Your task to perform on an android device: Open calendar and show me the second week of next month Image 0: 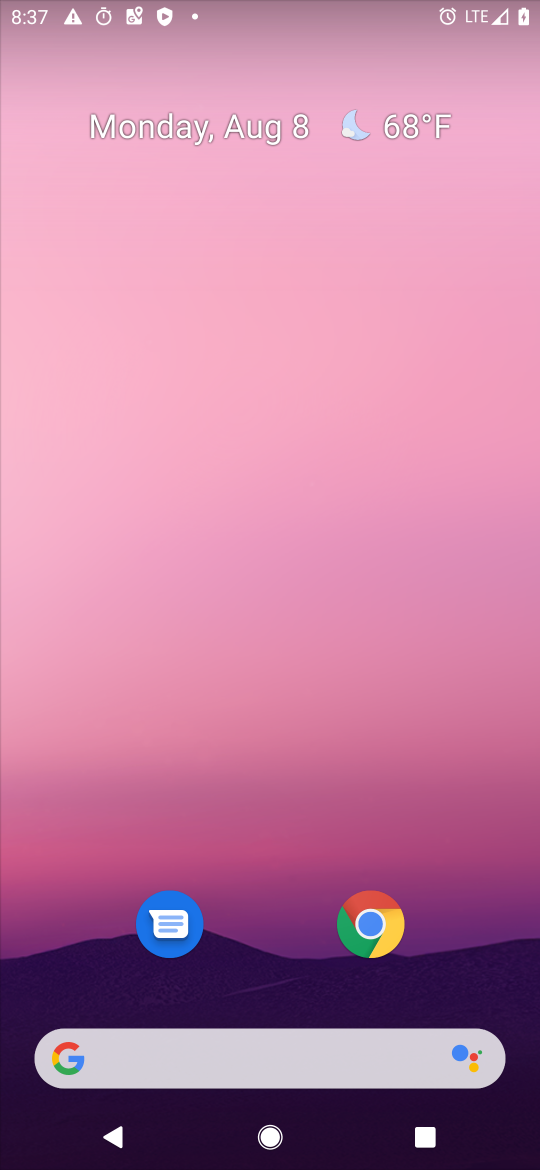
Step 0: drag from (274, 863) to (176, 289)
Your task to perform on an android device: Open calendar and show me the second week of next month Image 1: 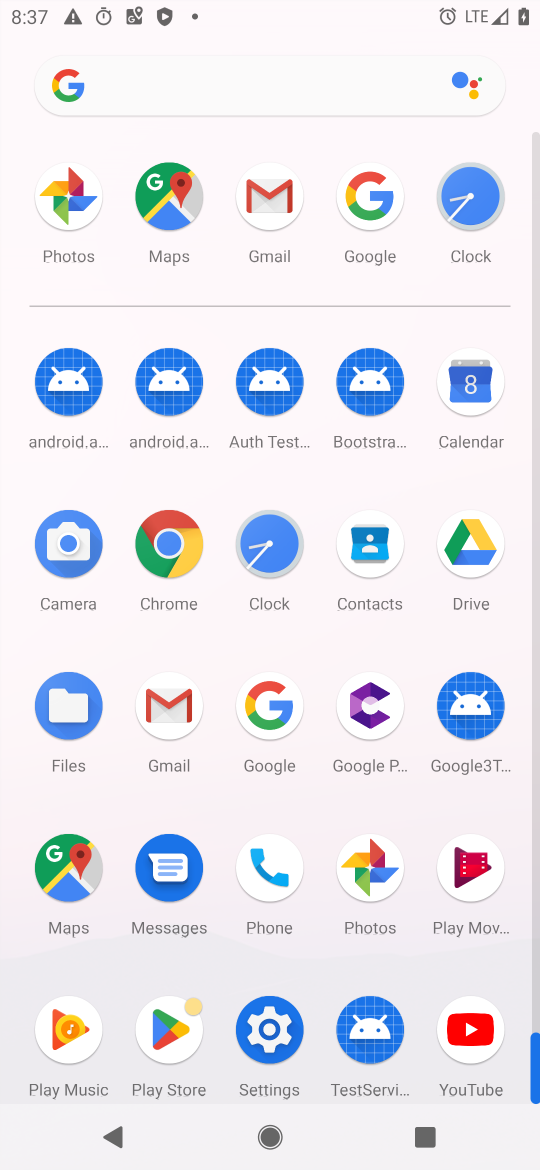
Step 1: click (472, 381)
Your task to perform on an android device: Open calendar and show me the second week of next month Image 2: 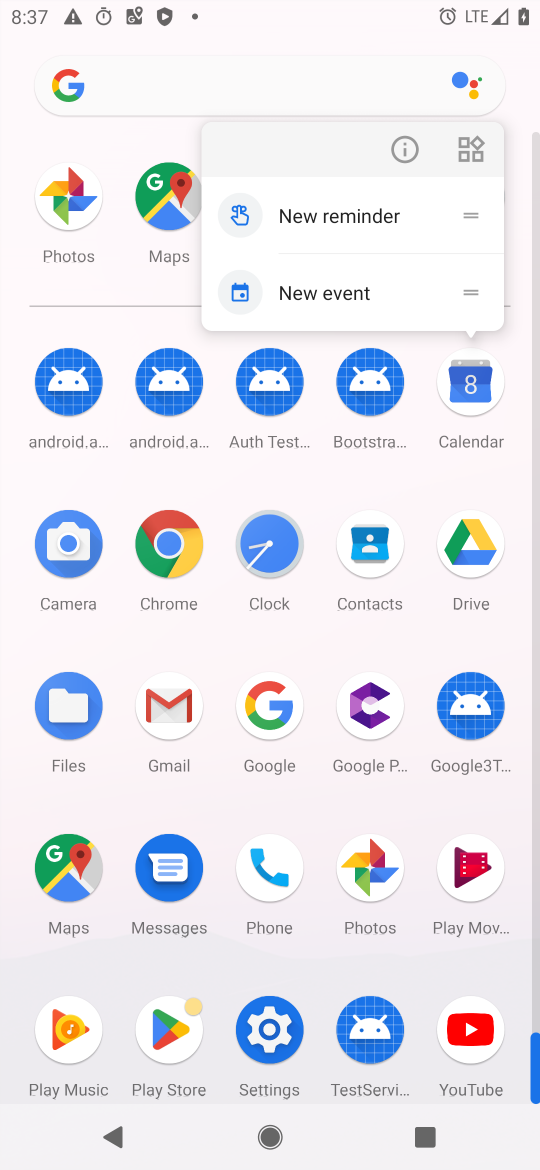
Step 2: click (390, 140)
Your task to perform on an android device: Open calendar and show me the second week of next month Image 3: 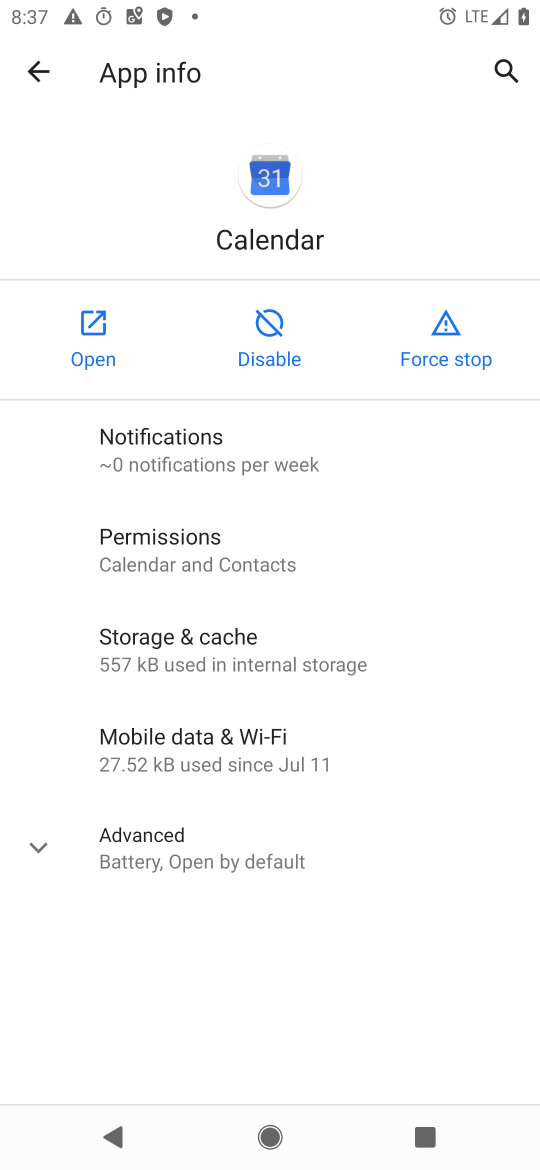
Step 3: click (103, 360)
Your task to perform on an android device: Open calendar and show me the second week of next month Image 4: 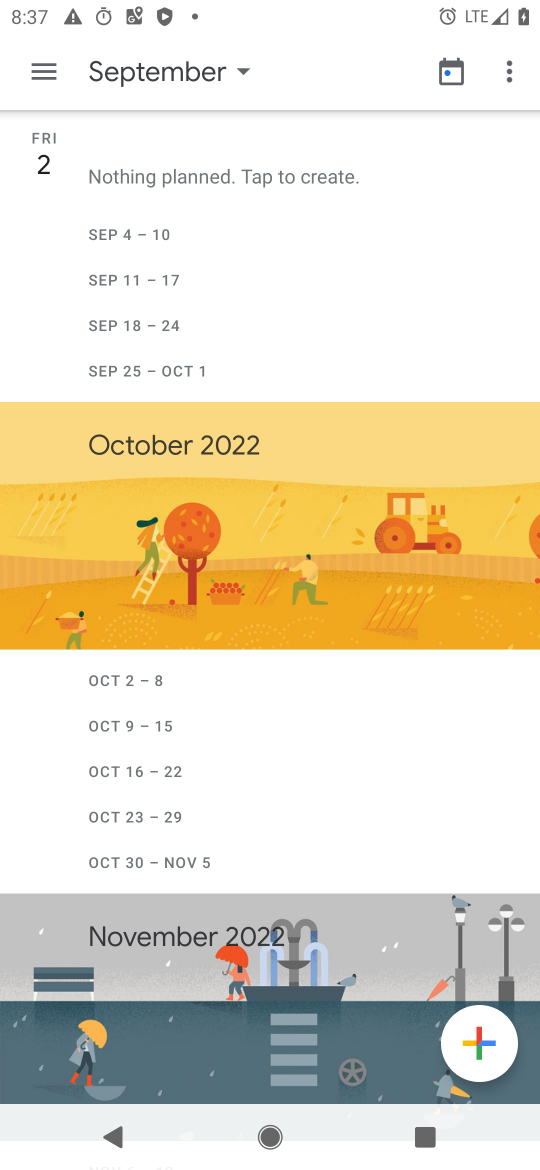
Step 4: click (187, 57)
Your task to perform on an android device: Open calendar and show me the second week of next month Image 5: 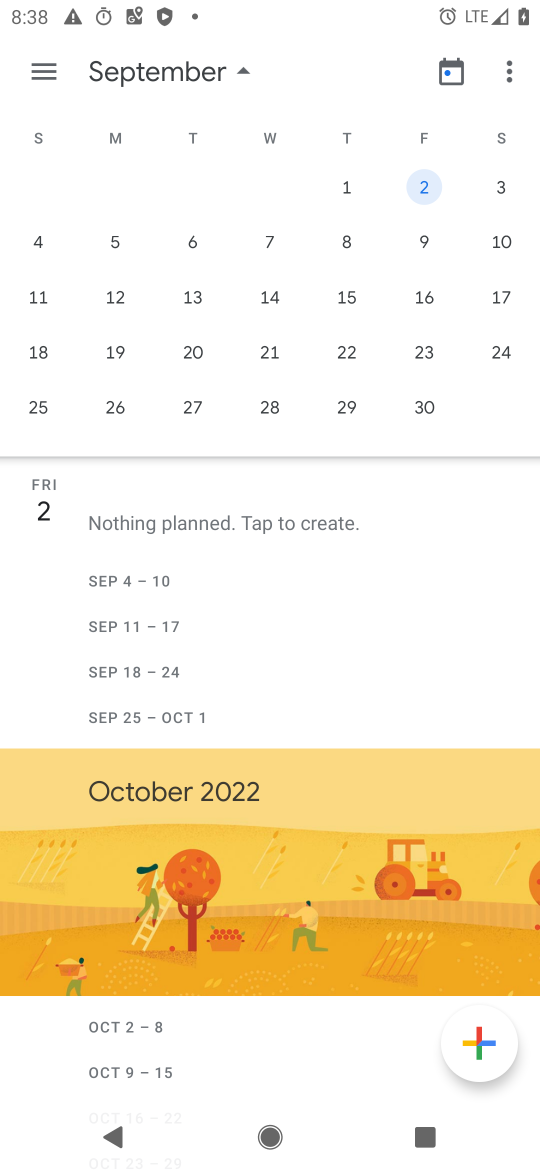
Step 5: click (430, 233)
Your task to perform on an android device: Open calendar and show me the second week of next month Image 6: 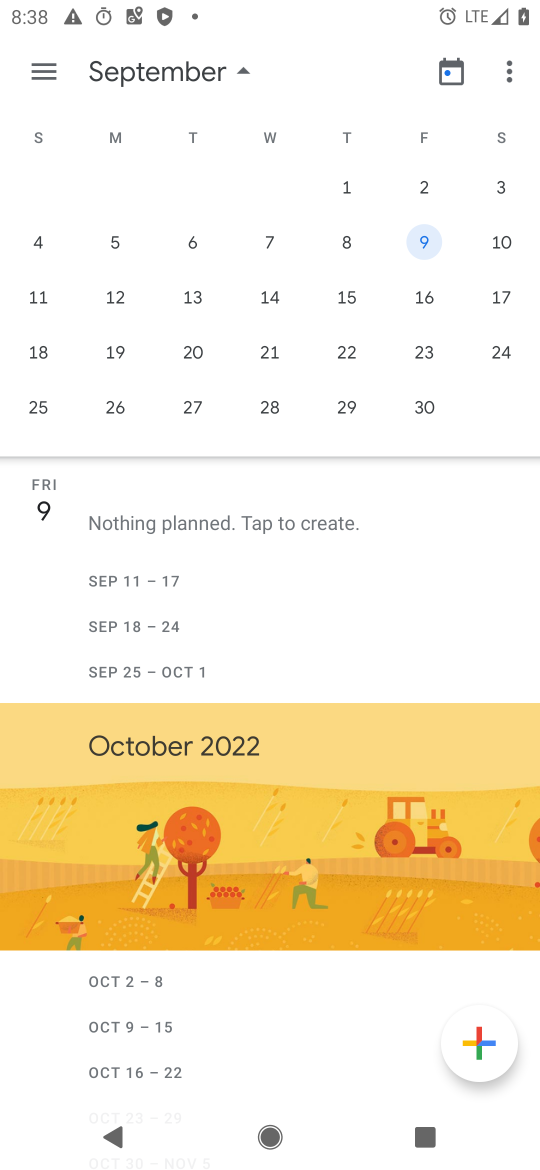
Step 6: task complete